Your task to perform on an android device: turn on sleep mode Image 0: 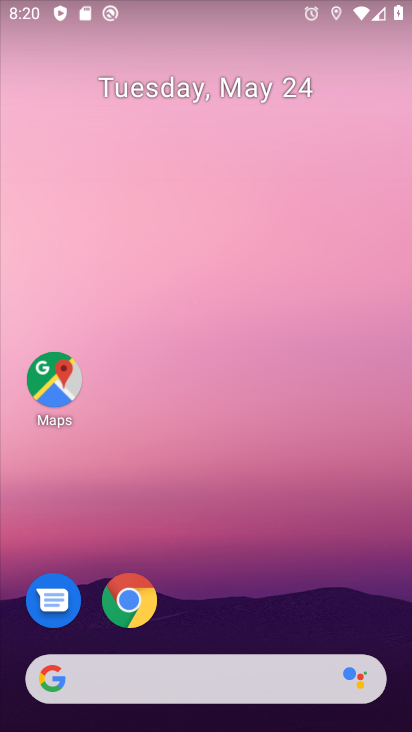
Step 0: drag from (206, 712) to (249, 0)
Your task to perform on an android device: turn on sleep mode Image 1: 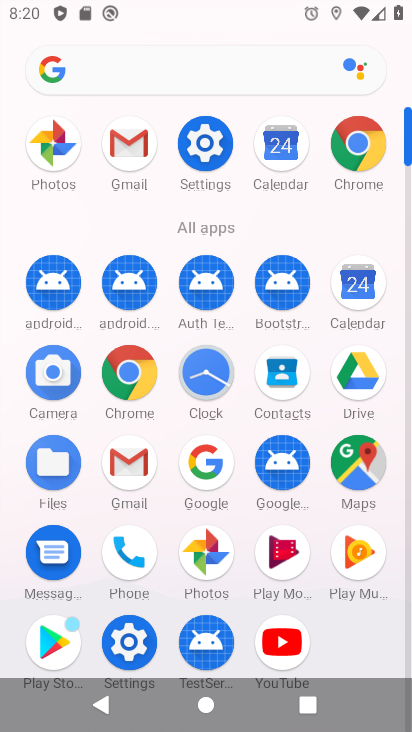
Step 1: click (212, 133)
Your task to perform on an android device: turn on sleep mode Image 2: 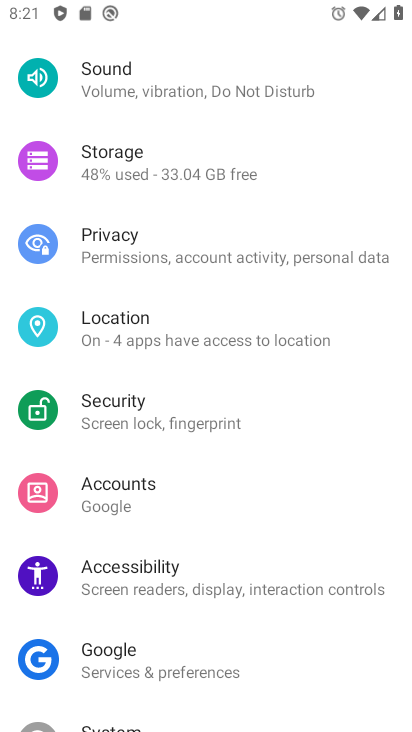
Step 2: drag from (208, 135) to (212, 543)
Your task to perform on an android device: turn on sleep mode Image 3: 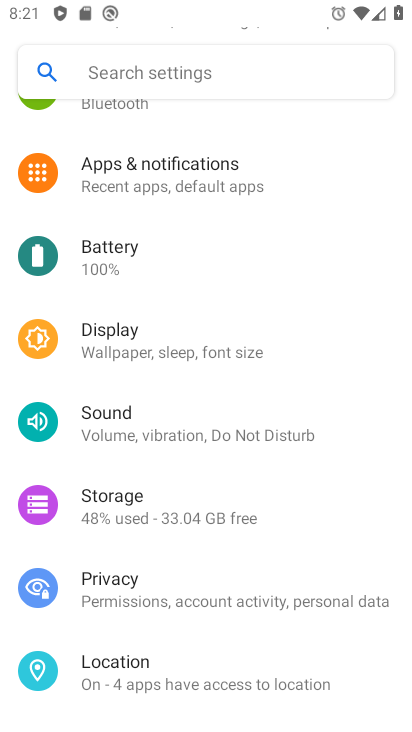
Step 3: drag from (249, 188) to (237, 456)
Your task to perform on an android device: turn on sleep mode Image 4: 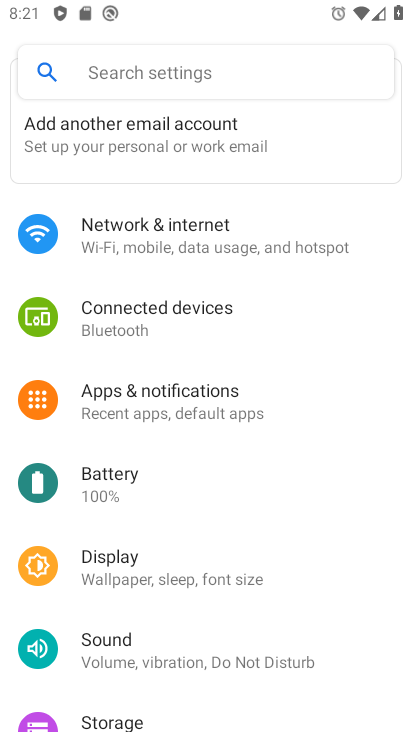
Step 4: click (195, 573)
Your task to perform on an android device: turn on sleep mode Image 5: 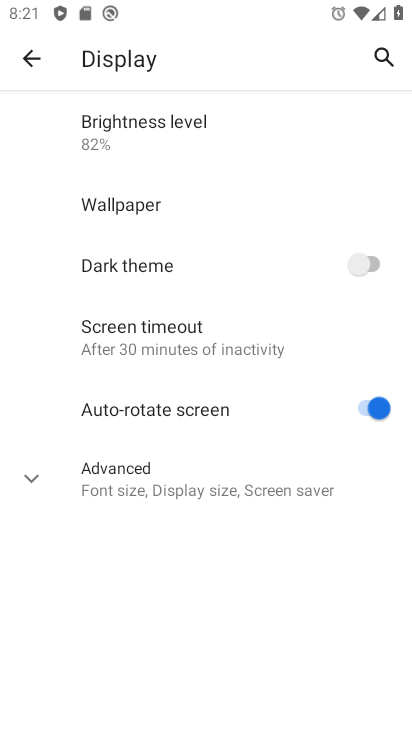
Step 5: task complete